Your task to perform on an android device: Open notification settings Image 0: 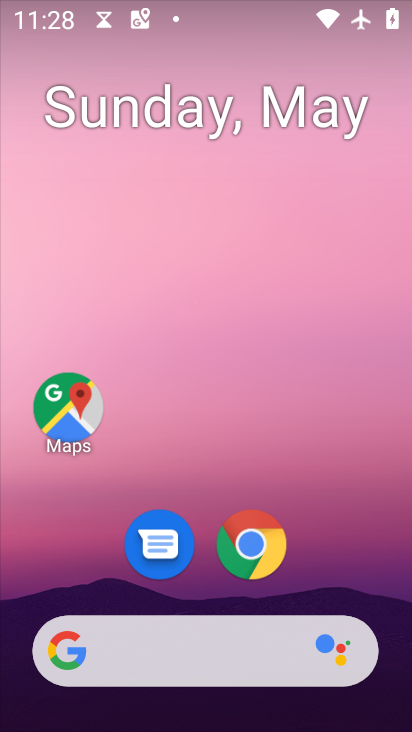
Step 0: drag from (336, 569) to (334, 176)
Your task to perform on an android device: Open notification settings Image 1: 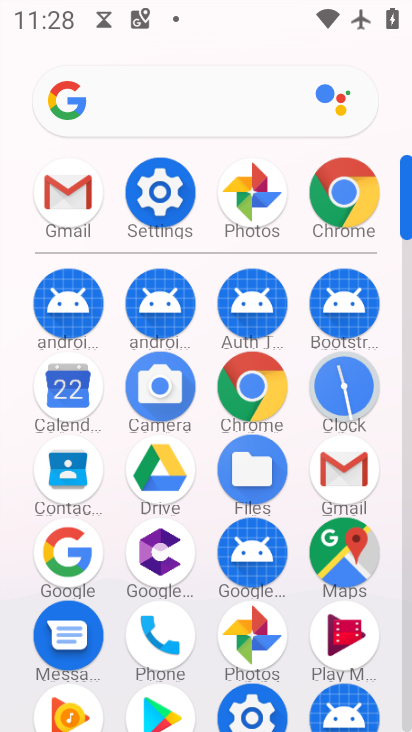
Step 1: click (156, 182)
Your task to perform on an android device: Open notification settings Image 2: 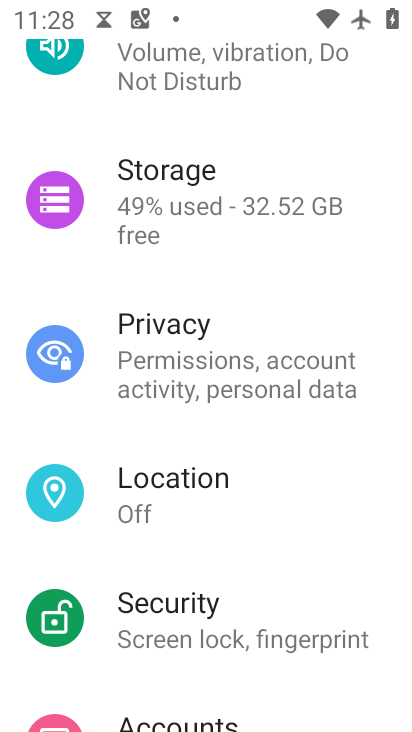
Step 2: drag from (252, 147) to (253, 615)
Your task to perform on an android device: Open notification settings Image 3: 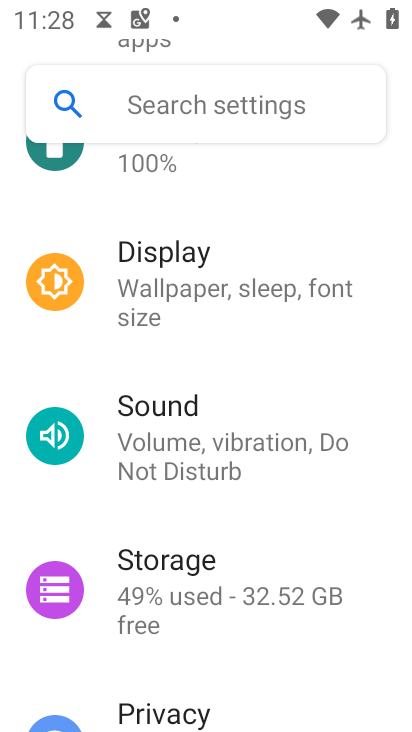
Step 3: drag from (245, 183) to (258, 585)
Your task to perform on an android device: Open notification settings Image 4: 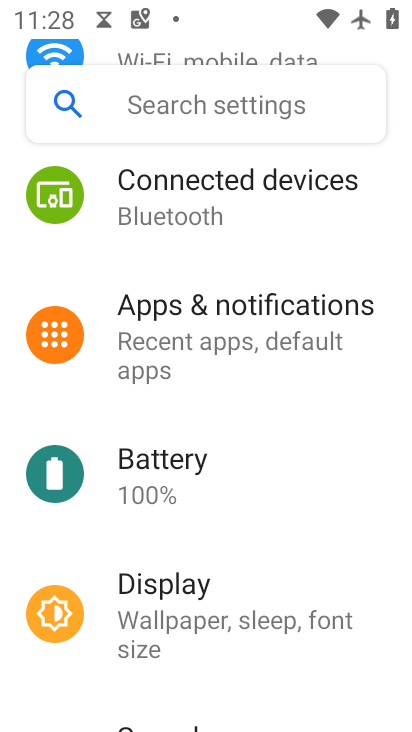
Step 4: click (266, 327)
Your task to perform on an android device: Open notification settings Image 5: 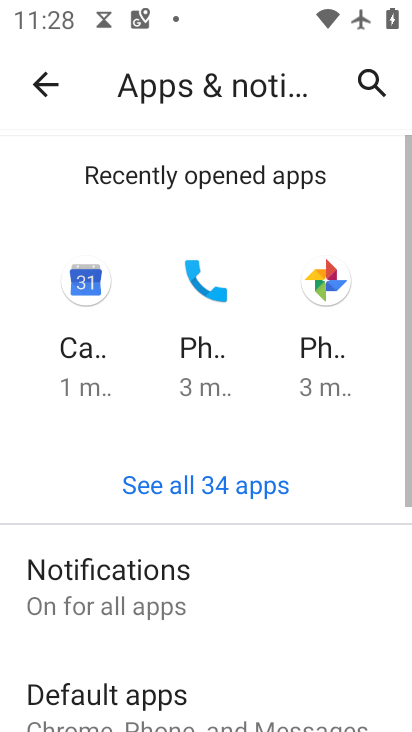
Step 5: click (184, 613)
Your task to perform on an android device: Open notification settings Image 6: 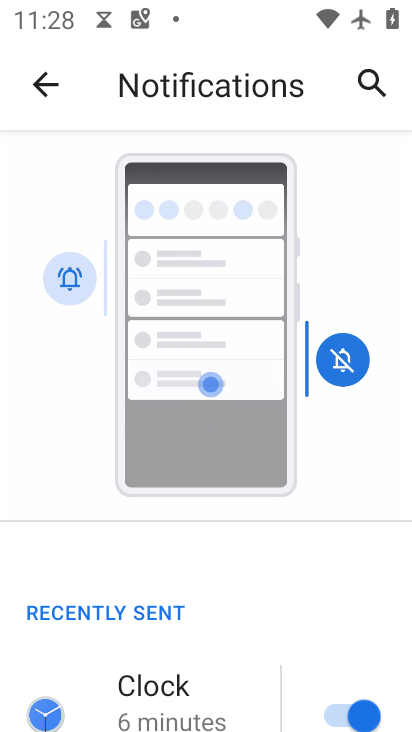
Step 6: task complete